Your task to perform on an android device: Show me recent news Image 0: 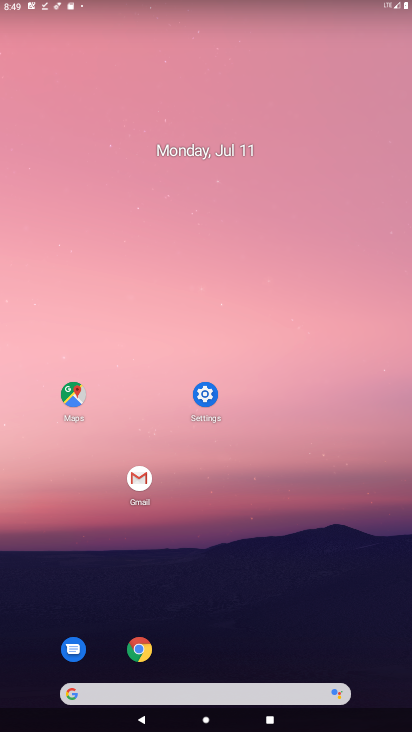
Step 0: drag from (1, 166) to (411, 225)
Your task to perform on an android device: Show me recent news Image 1: 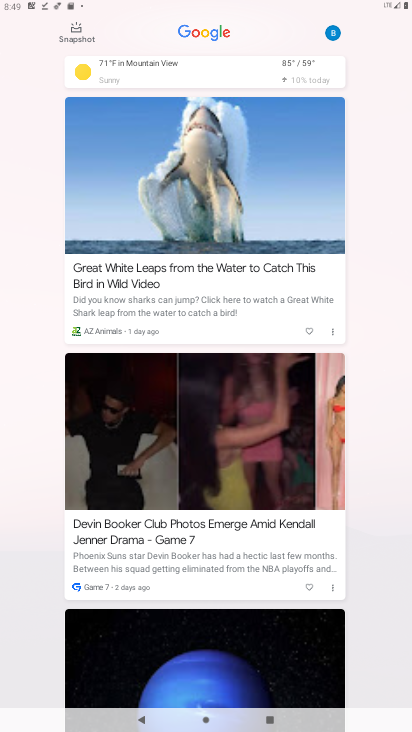
Step 1: task complete